Your task to perform on an android device: Open the Play Movies app and select the watchlist tab. Image 0: 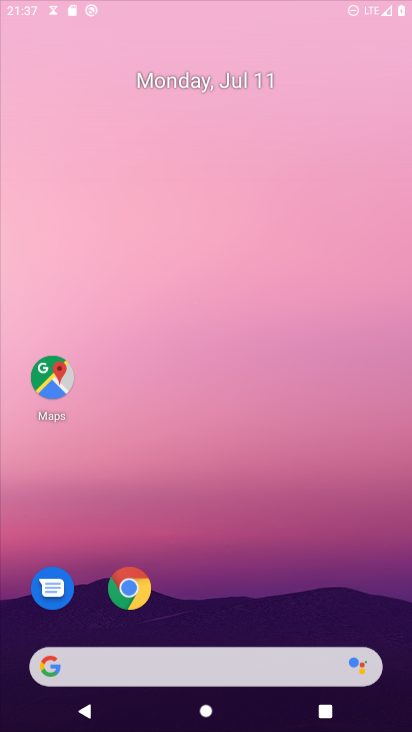
Step 0: press home button
Your task to perform on an android device: Open the Play Movies app and select the watchlist tab. Image 1: 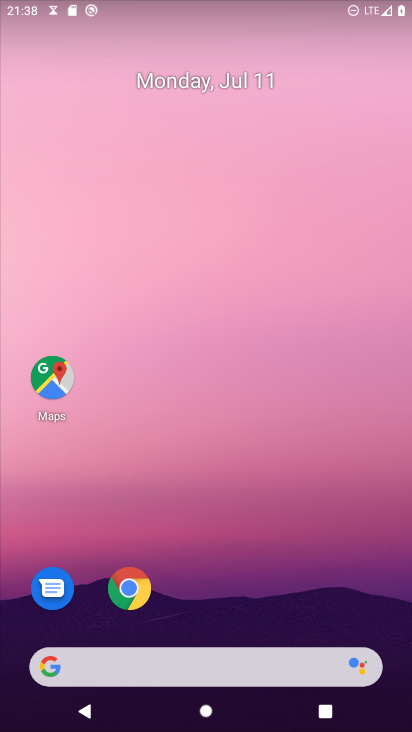
Step 1: drag from (233, 572) to (205, 0)
Your task to perform on an android device: Open the Play Movies app and select the watchlist tab. Image 2: 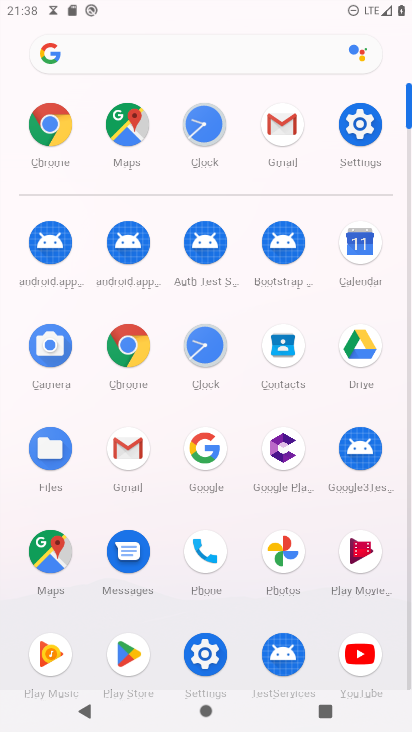
Step 2: click (358, 609)
Your task to perform on an android device: Open the Play Movies app and select the watchlist tab. Image 3: 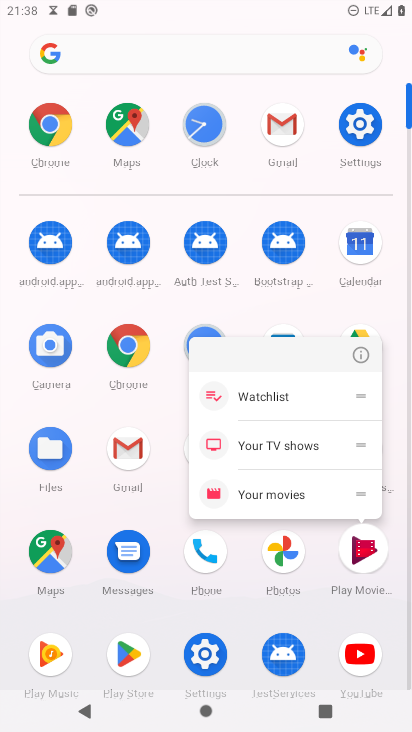
Step 3: click (364, 552)
Your task to perform on an android device: Open the Play Movies app and select the watchlist tab. Image 4: 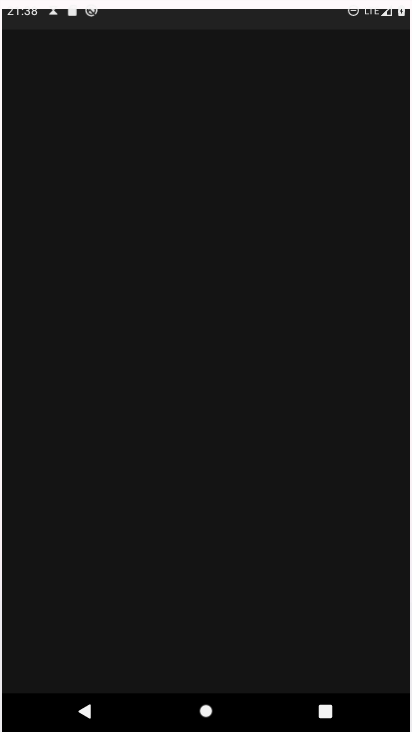
Step 4: click (364, 552)
Your task to perform on an android device: Open the Play Movies app and select the watchlist tab. Image 5: 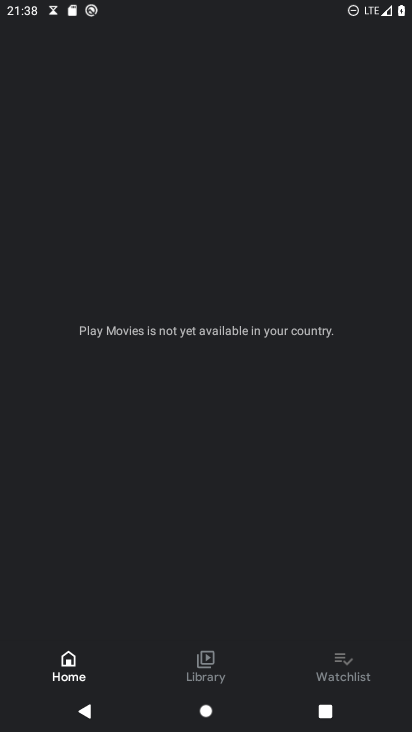
Step 5: click (338, 664)
Your task to perform on an android device: Open the Play Movies app and select the watchlist tab. Image 6: 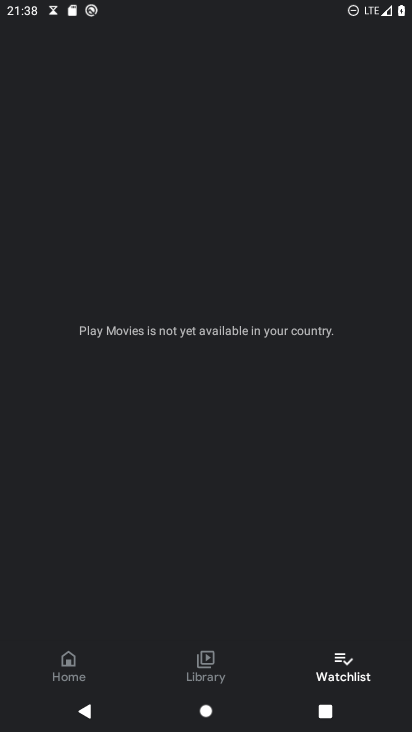
Step 6: task complete